Your task to perform on an android device: turn off smart reply in the gmail app Image 0: 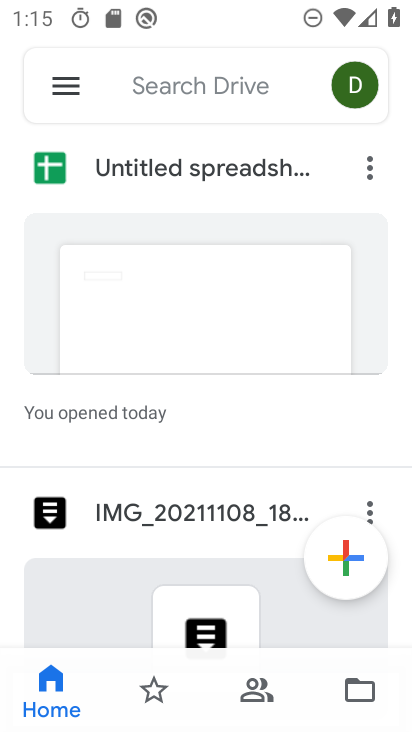
Step 0: press home button
Your task to perform on an android device: turn off smart reply in the gmail app Image 1: 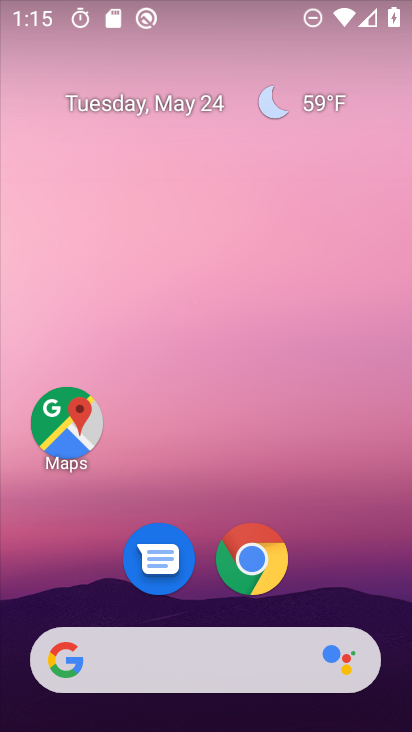
Step 1: drag from (400, 701) to (370, 202)
Your task to perform on an android device: turn off smart reply in the gmail app Image 2: 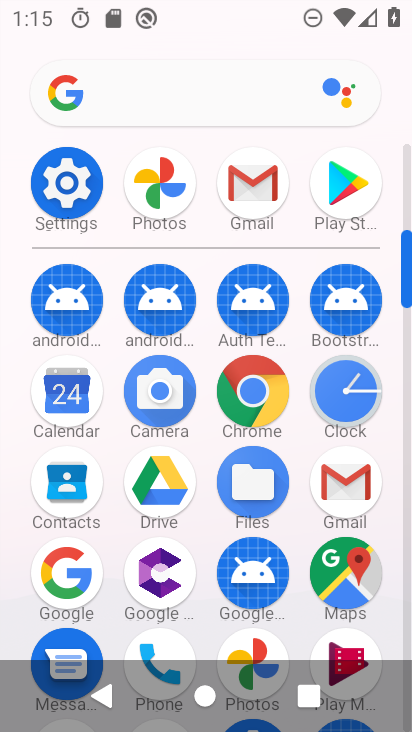
Step 2: click (354, 560)
Your task to perform on an android device: turn off smart reply in the gmail app Image 3: 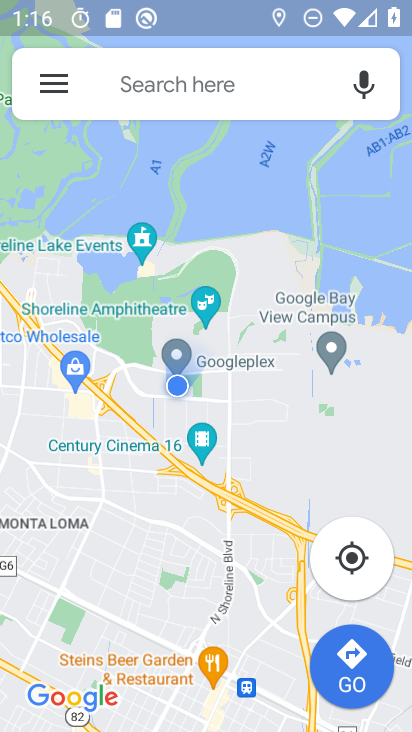
Step 3: press back button
Your task to perform on an android device: turn off smart reply in the gmail app Image 4: 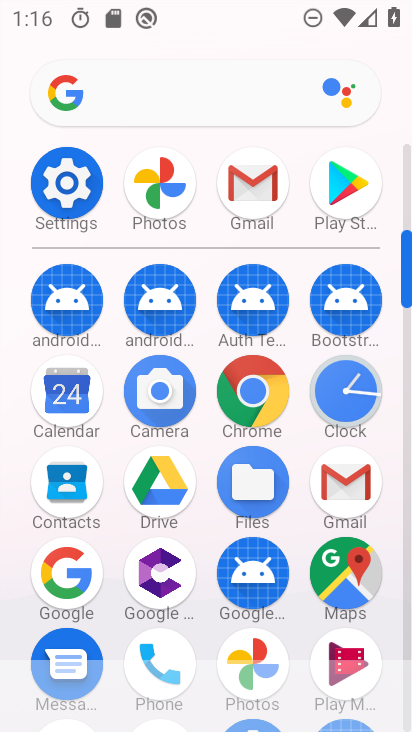
Step 4: click (334, 480)
Your task to perform on an android device: turn off smart reply in the gmail app Image 5: 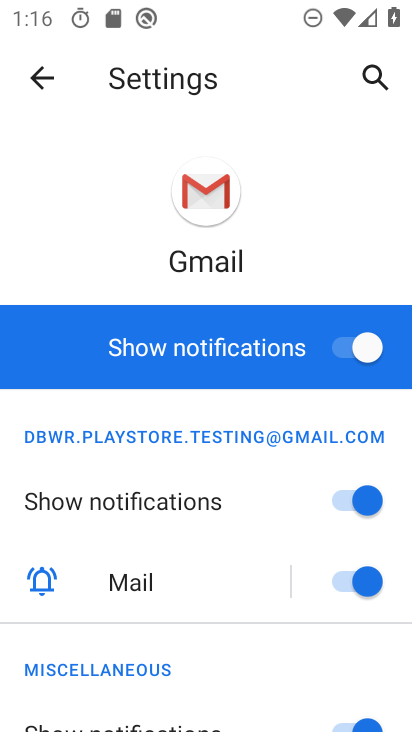
Step 5: drag from (227, 615) to (232, 245)
Your task to perform on an android device: turn off smart reply in the gmail app Image 6: 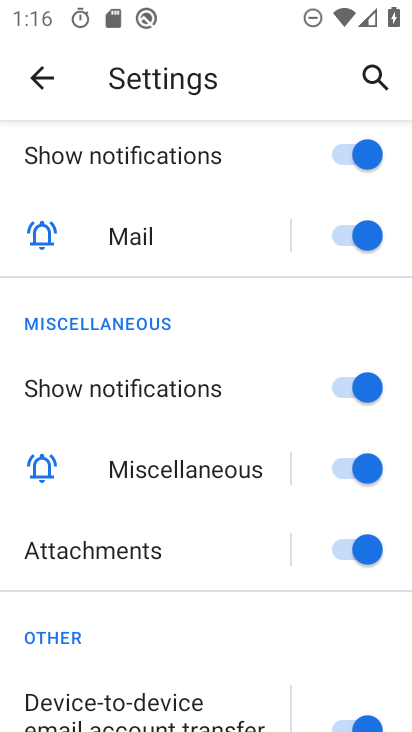
Step 6: click (33, 73)
Your task to perform on an android device: turn off smart reply in the gmail app Image 7: 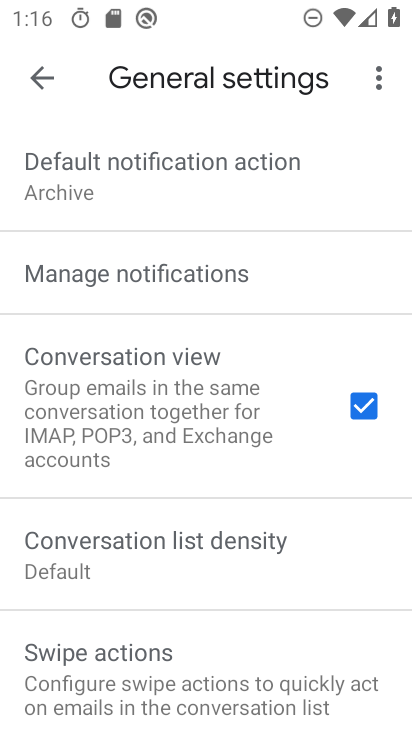
Step 7: click (40, 77)
Your task to perform on an android device: turn off smart reply in the gmail app Image 8: 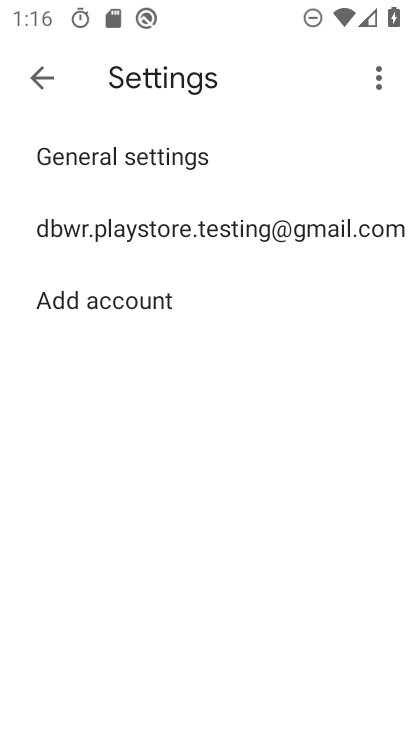
Step 8: click (114, 222)
Your task to perform on an android device: turn off smart reply in the gmail app Image 9: 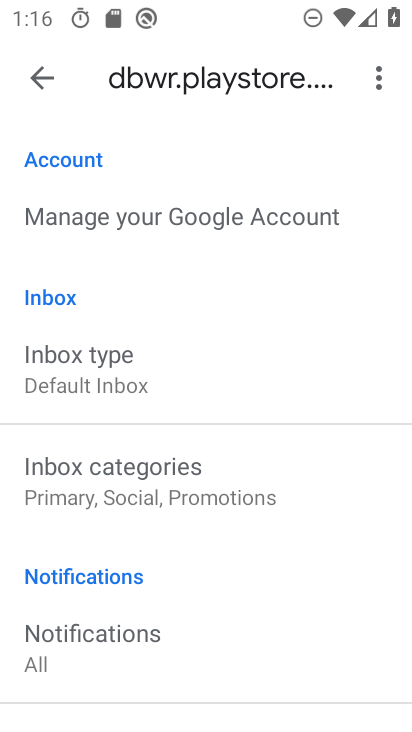
Step 9: task complete